Your task to perform on an android device: Go to settings Image 0: 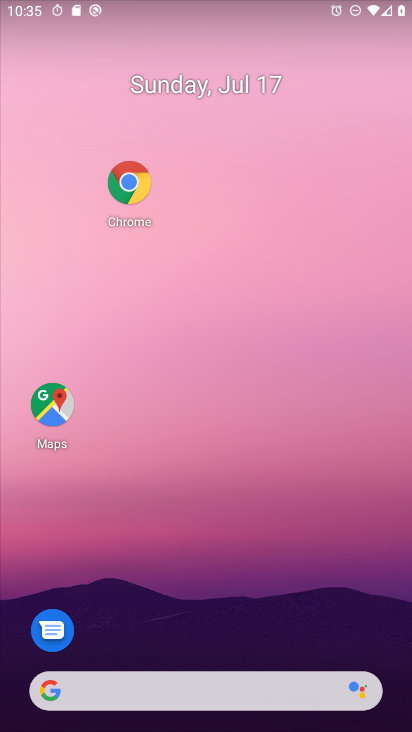
Step 0: drag from (179, 636) to (179, 115)
Your task to perform on an android device: Go to settings Image 1: 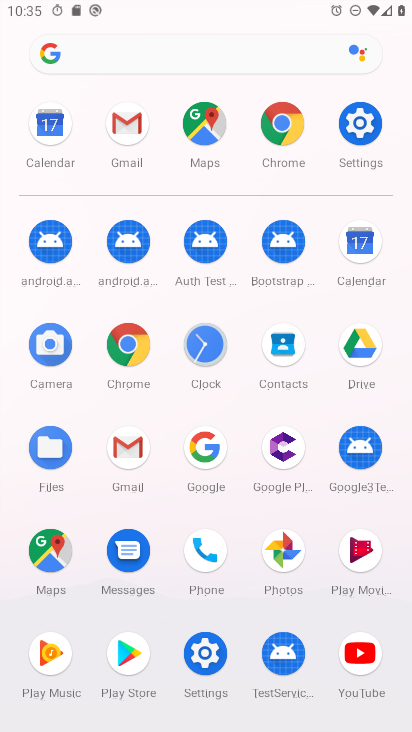
Step 1: click (346, 115)
Your task to perform on an android device: Go to settings Image 2: 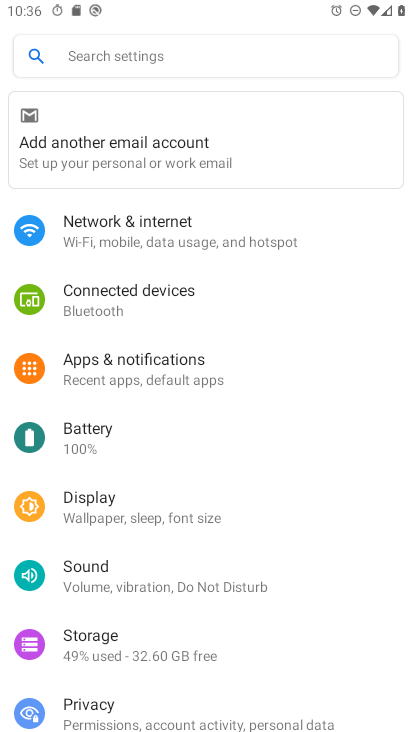
Step 2: task complete